Your task to perform on an android device: Go to privacy settings Image 0: 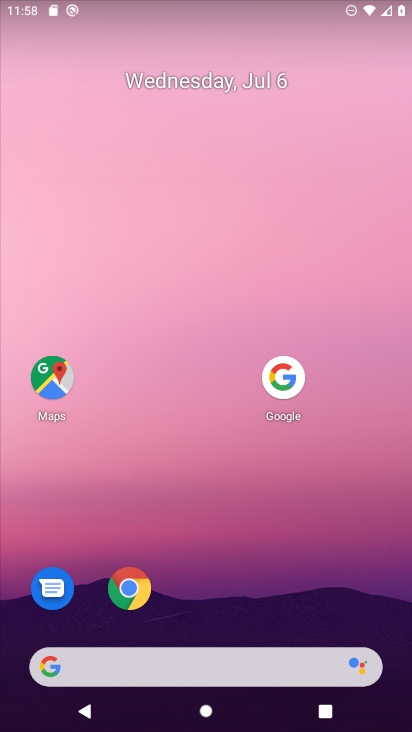
Step 0: drag from (186, 663) to (330, 203)
Your task to perform on an android device: Go to privacy settings Image 1: 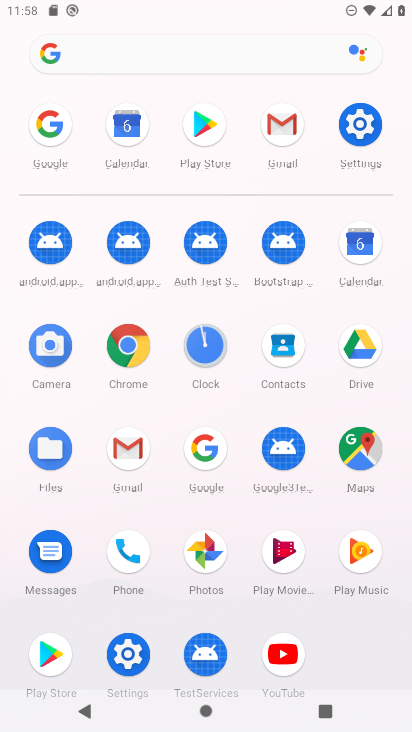
Step 1: click (349, 119)
Your task to perform on an android device: Go to privacy settings Image 2: 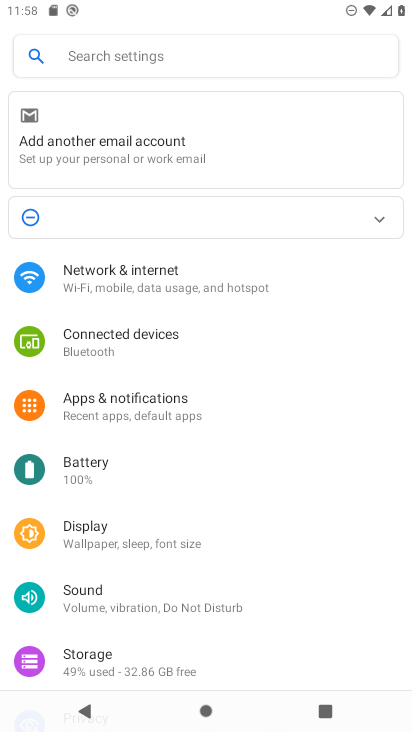
Step 2: drag from (240, 607) to (357, 152)
Your task to perform on an android device: Go to privacy settings Image 3: 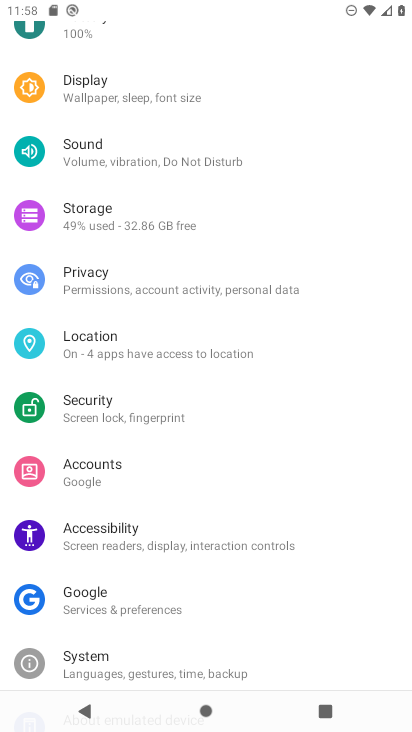
Step 3: drag from (224, 600) to (257, 275)
Your task to perform on an android device: Go to privacy settings Image 4: 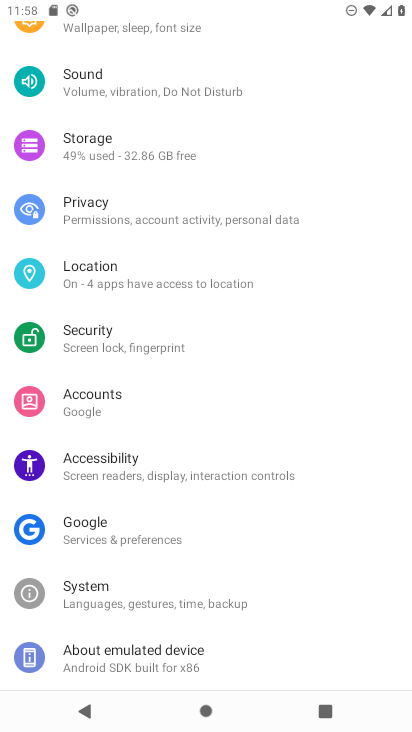
Step 4: click (101, 215)
Your task to perform on an android device: Go to privacy settings Image 5: 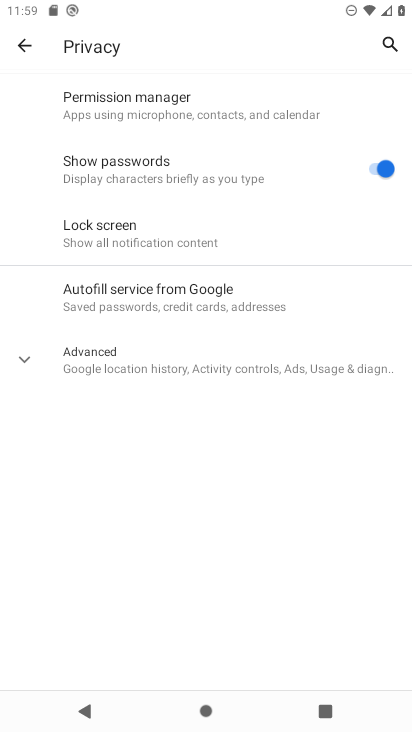
Step 5: task complete